Your task to perform on an android device: make emails show in primary in the gmail app Image 0: 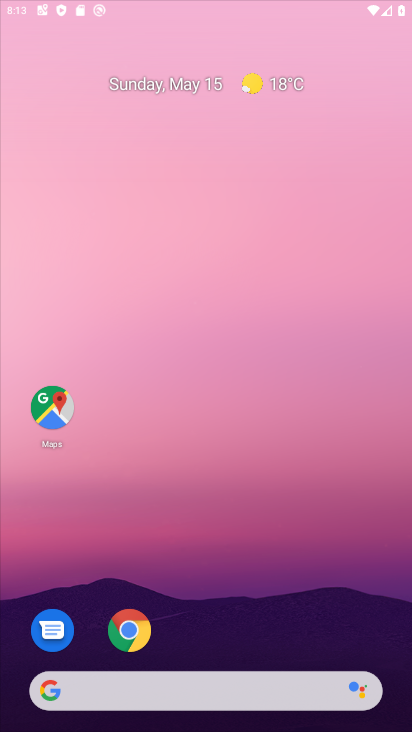
Step 0: click (325, 200)
Your task to perform on an android device: make emails show in primary in the gmail app Image 1: 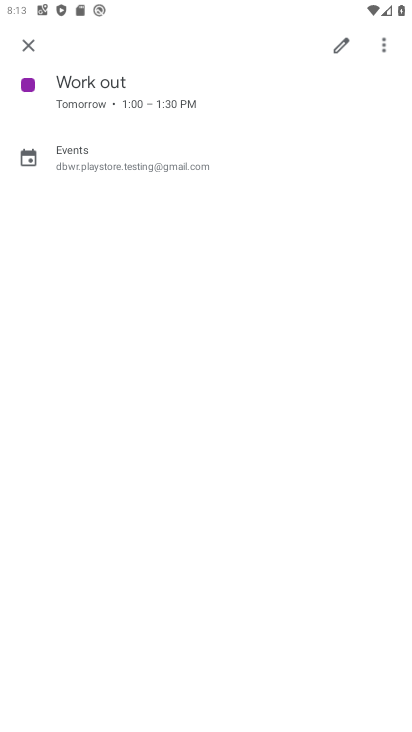
Step 1: press home button
Your task to perform on an android device: make emails show in primary in the gmail app Image 2: 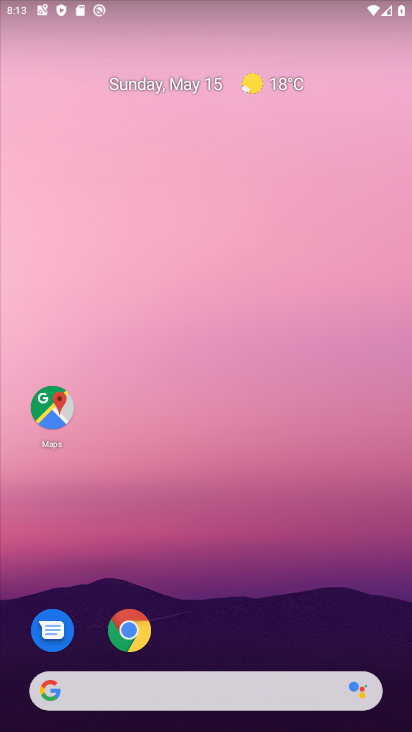
Step 2: drag from (186, 647) to (224, 401)
Your task to perform on an android device: make emails show in primary in the gmail app Image 3: 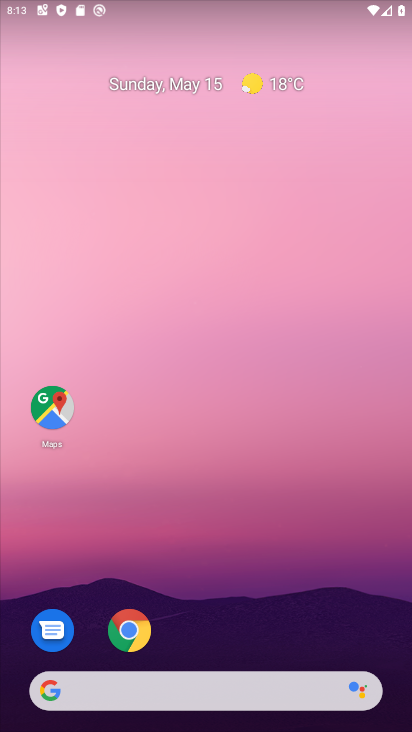
Step 3: drag from (203, 654) to (370, 6)
Your task to perform on an android device: make emails show in primary in the gmail app Image 4: 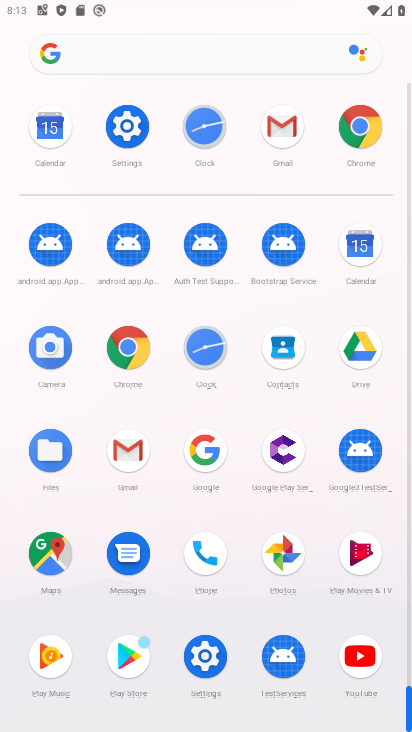
Step 4: click (123, 459)
Your task to perform on an android device: make emails show in primary in the gmail app Image 5: 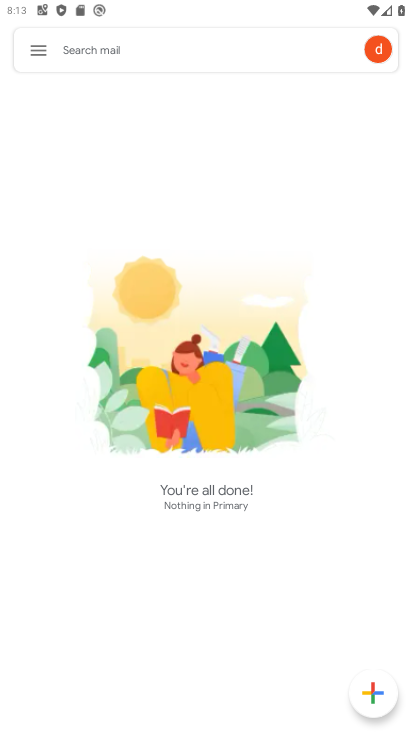
Step 5: drag from (220, 534) to (200, 267)
Your task to perform on an android device: make emails show in primary in the gmail app Image 6: 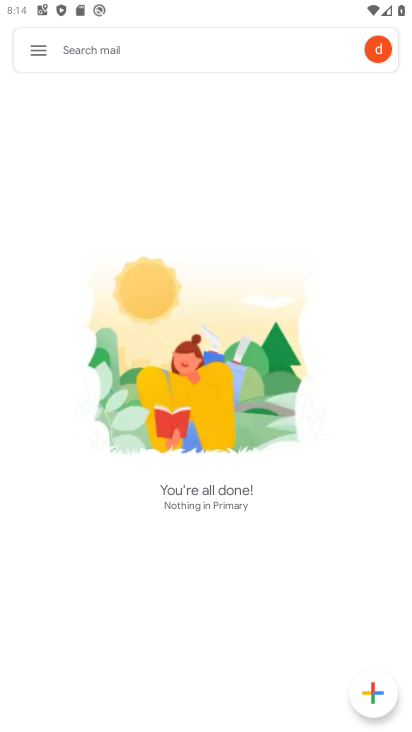
Step 6: drag from (323, 729) to (207, 278)
Your task to perform on an android device: make emails show in primary in the gmail app Image 7: 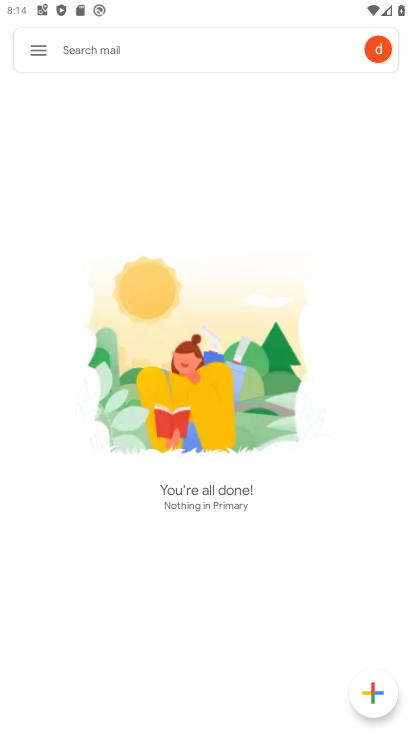
Step 7: click (36, 62)
Your task to perform on an android device: make emails show in primary in the gmail app Image 8: 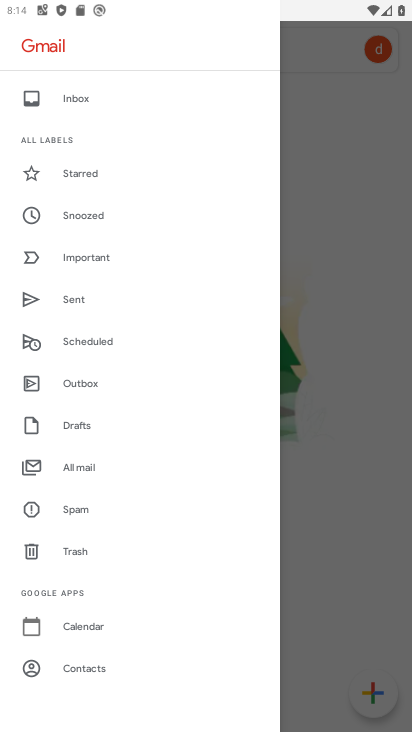
Step 8: drag from (128, 536) to (200, 72)
Your task to perform on an android device: make emails show in primary in the gmail app Image 9: 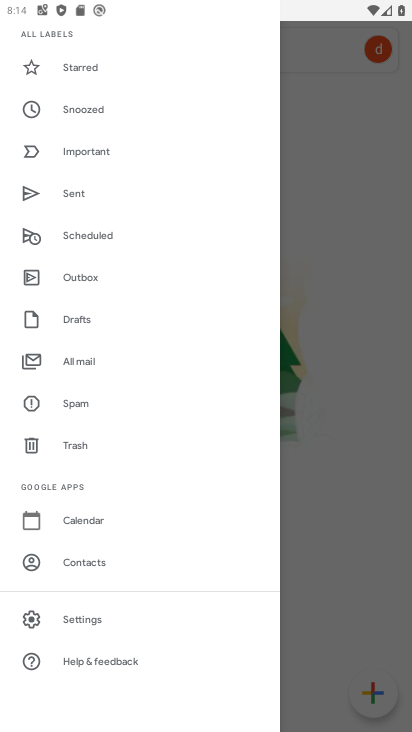
Step 9: drag from (144, 622) to (199, 198)
Your task to perform on an android device: make emails show in primary in the gmail app Image 10: 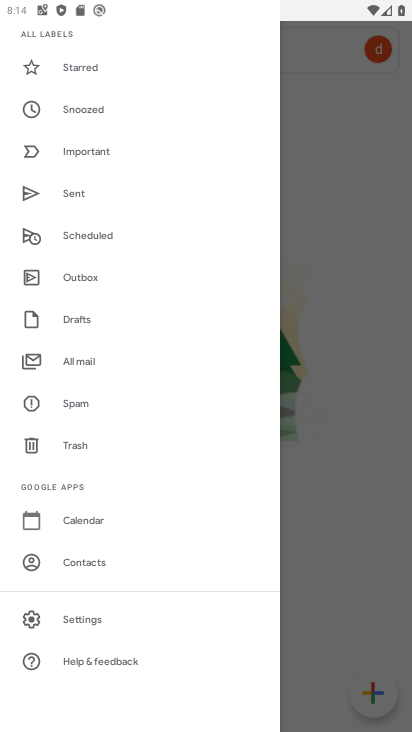
Step 10: drag from (134, 173) to (191, 691)
Your task to perform on an android device: make emails show in primary in the gmail app Image 11: 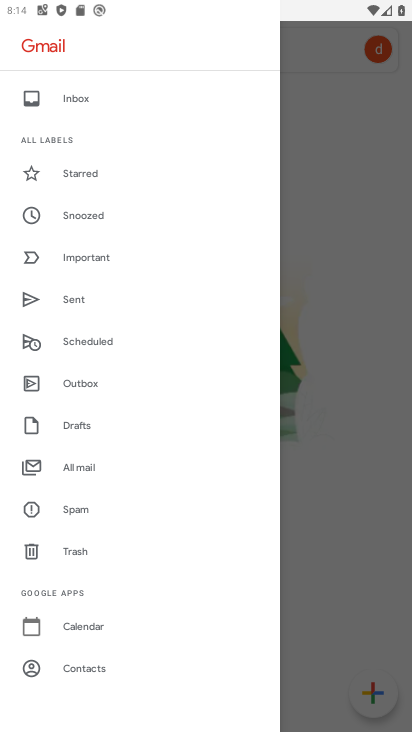
Step 11: click (94, 96)
Your task to perform on an android device: make emails show in primary in the gmail app Image 12: 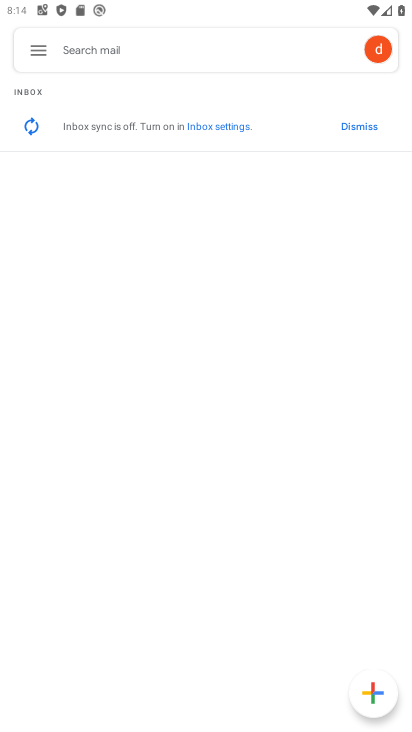
Step 12: task complete